Your task to perform on an android device: turn on location history Image 0: 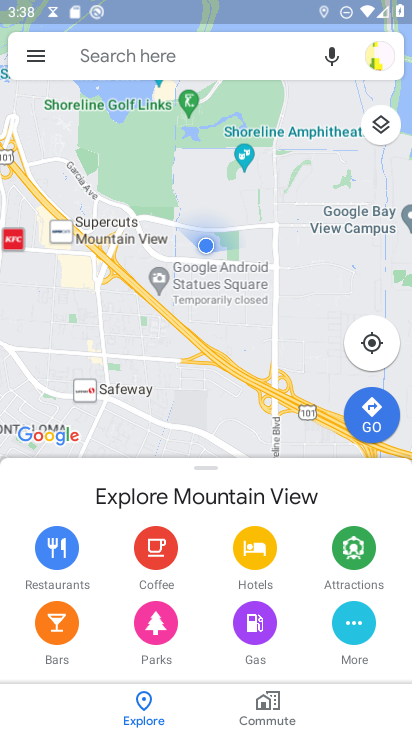
Step 0: click (34, 49)
Your task to perform on an android device: turn on location history Image 1: 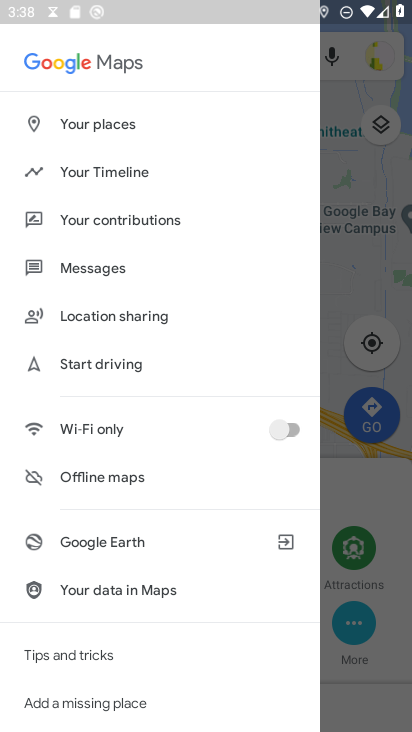
Step 1: drag from (154, 657) to (191, 182)
Your task to perform on an android device: turn on location history Image 2: 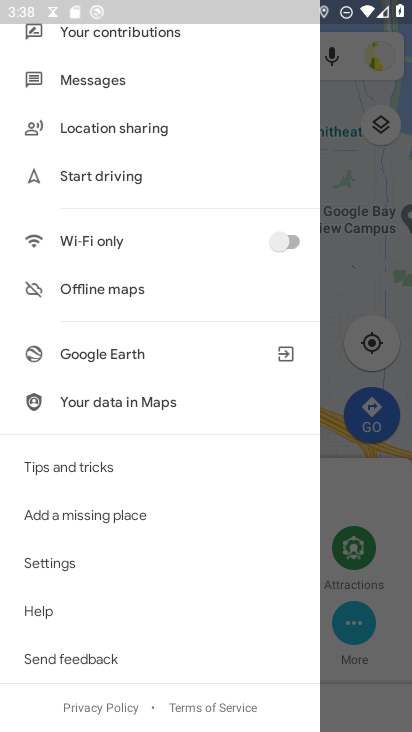
Step 2: click (64, 568)
Your task to perform on an android device: turn on location history Image 3: 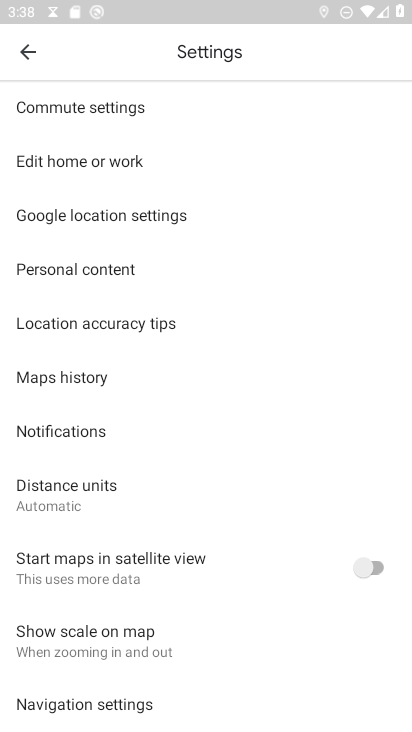
Step 3: click (101, 212)
Your task to perform on an android device: turn on location history Image 4: 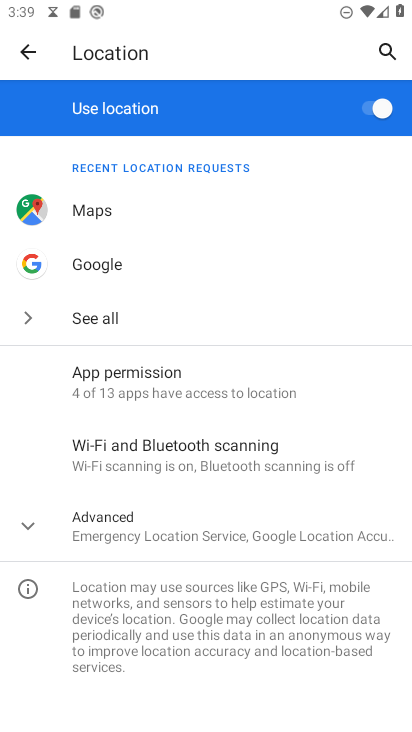
Step 4: click (191, 525)
Your task to perform on an android device: turn on location history Image 5: 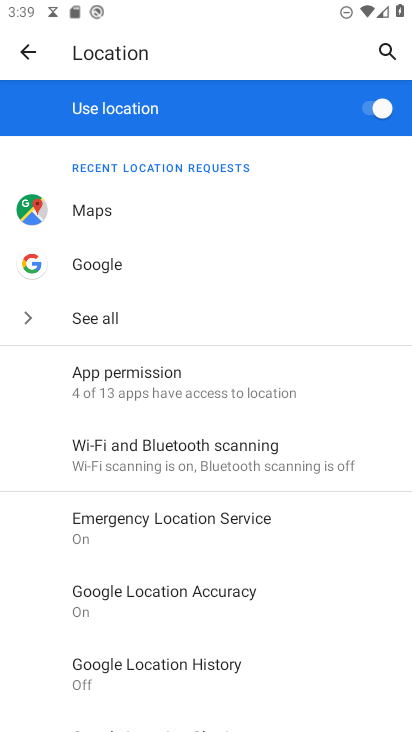
Step 5: click (161, 673)
Your task to perform on an android device: turn on location history Image 6: 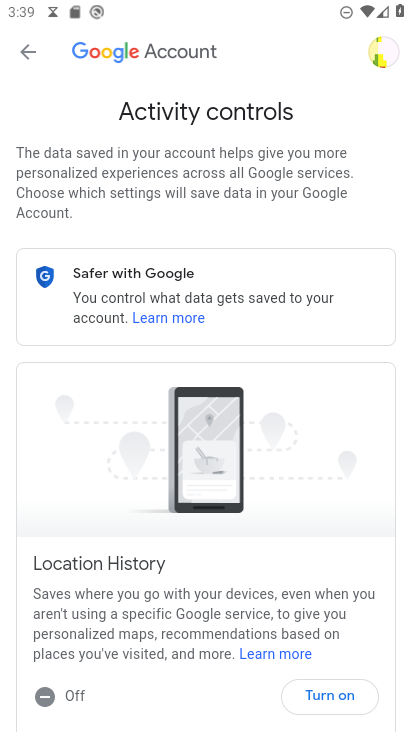
Step 6: click (343, 692)
Your task to perform on an android device: turn on location history Image 7: 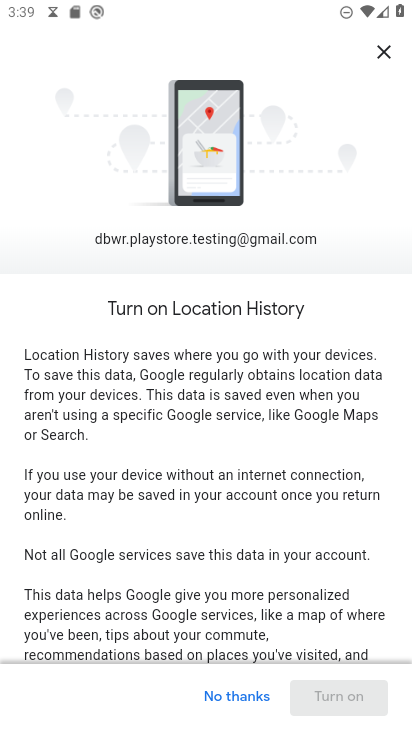
Step 7: drag from (275, 612) to (275, 182)
Your task to perform on an android device: turn on location history Image 8: 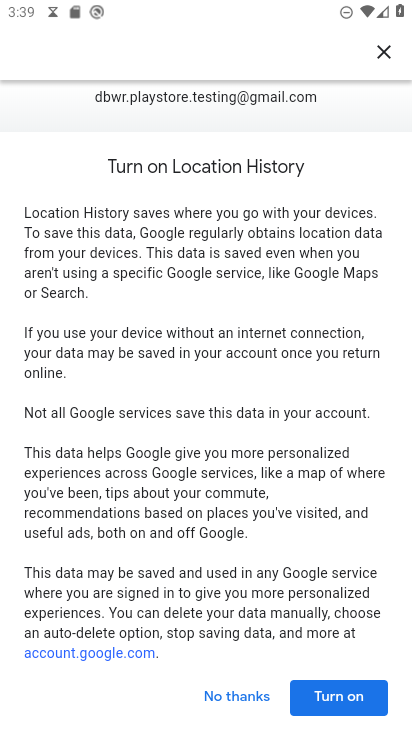
Step 8: click (338, 689)
Your task to perform on an android device: turn on location history Image 9: 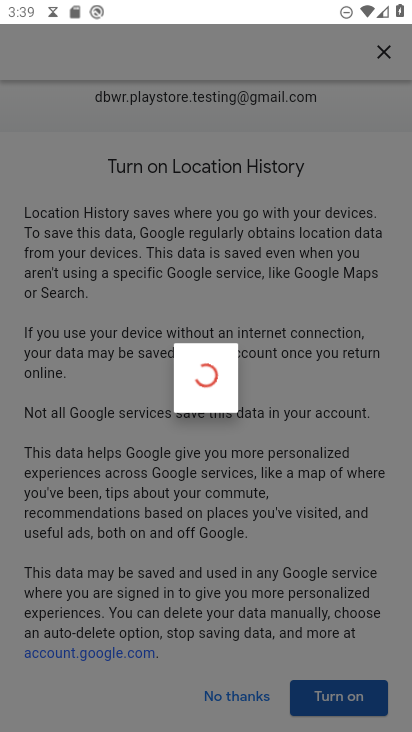
Step 9: click (340, 696)
Your task to perform on an android device: turn on location history Image 10: 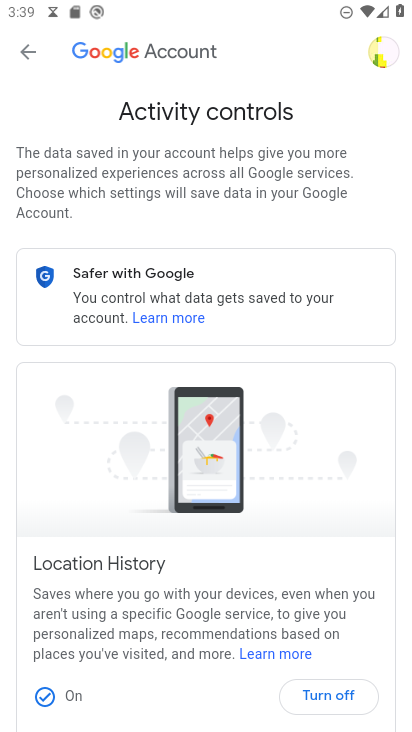
Step 10: task complete